Your task to perform on an android device: Open eBay Image 0: 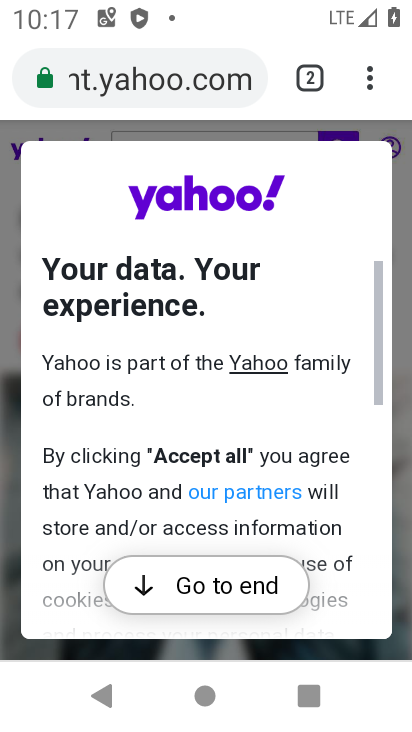
Step 0: press home button
Your task to perform on an android device: Open eBay Image 1: 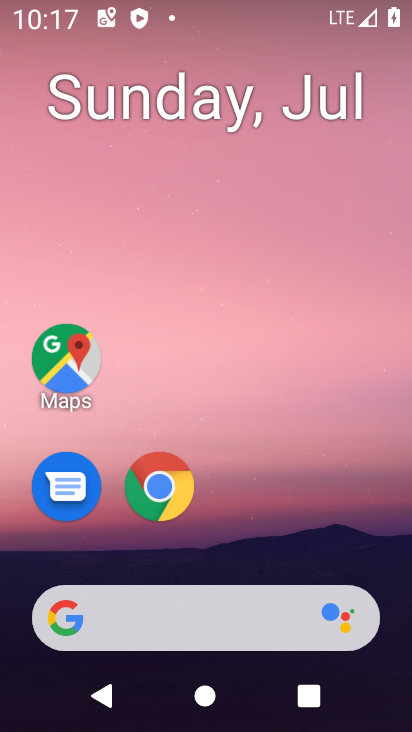
Step 1: drag from (340, 530) to (350, 102)
Your task to perform on an android device: Open eBay Image 2: 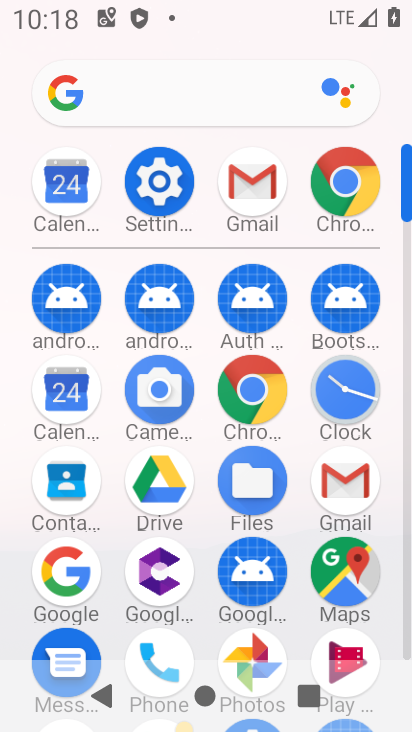
Step 2: click (249, 393)
Your task to perform on an android device: Open eBay Image 3: 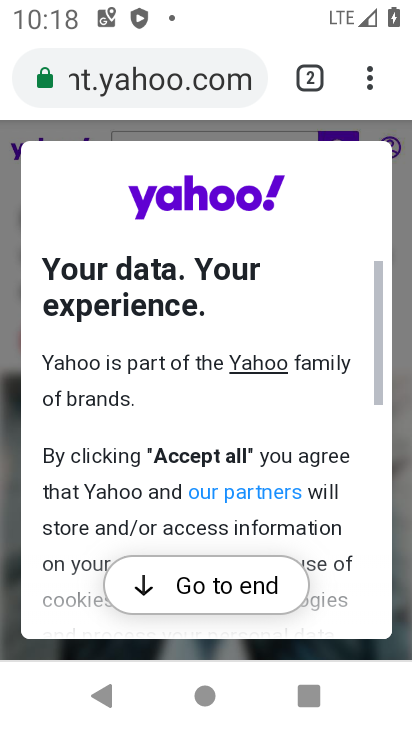
Step 3: click (212, 86)
Your task to perform on an android device: Open eBay Image 4: 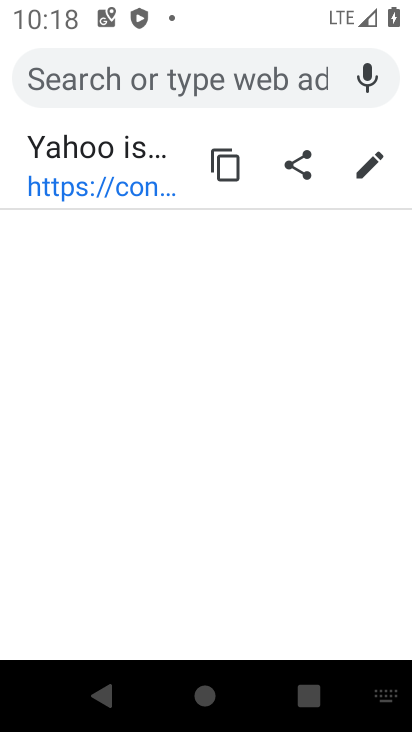
Step 4: type "ebay"
Your task to perform on an android device: Open eBay Image 5: 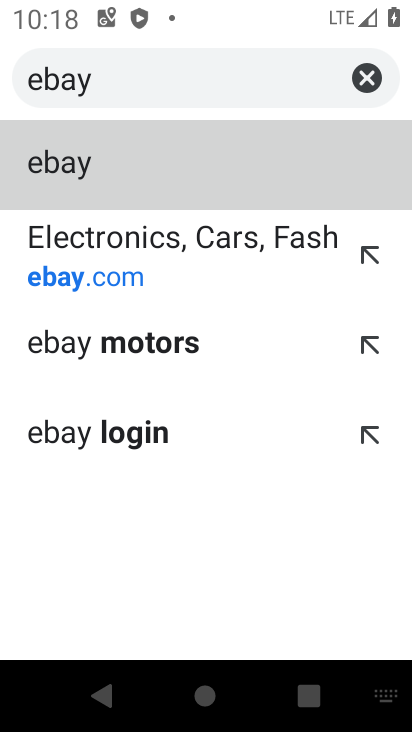
Step 5: click (354, 155)
Your task to perform on an android device: Open eBay Image 6: 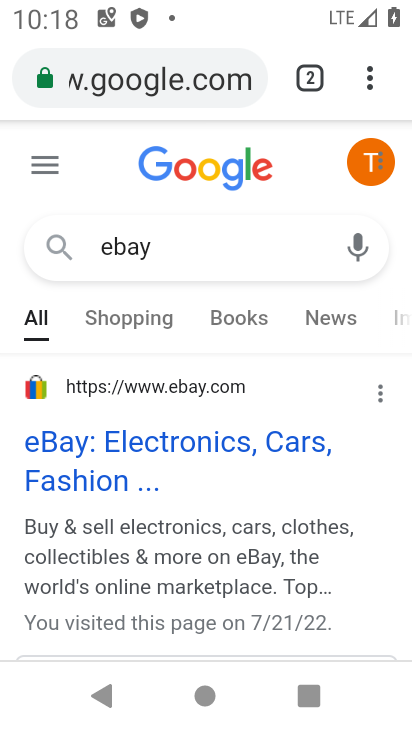
Step 6: task complete